Your task to perform on an android device: open app "McDonald's" (install if not already installed) Image 0: 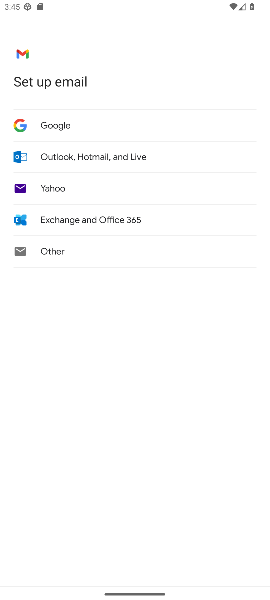
Step 0: press home button
Your task to perform on an android device: open app "McDonald's" (install if not already installed) Image 1: 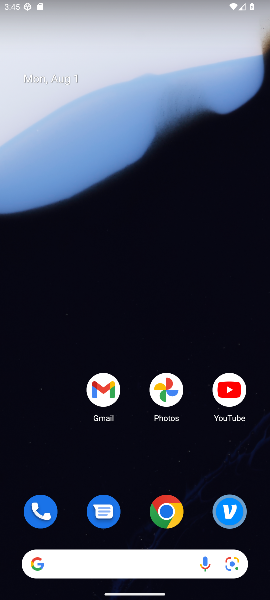
Step 1: click (126, 504)
Your task to perform on an android device: open app "McDonald's" (install if not already installed) Image 2: 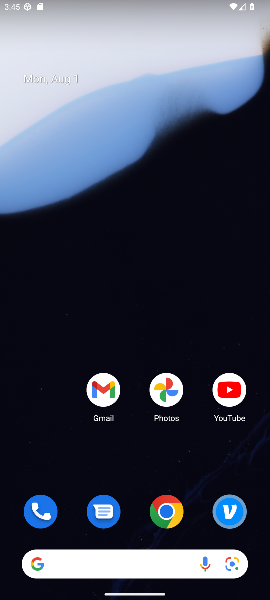
Step 2: drag from (124, 492) to (128, 142)
Your task to perform on an android device: open app "McDonald's" (install if not already installed) Image 3: 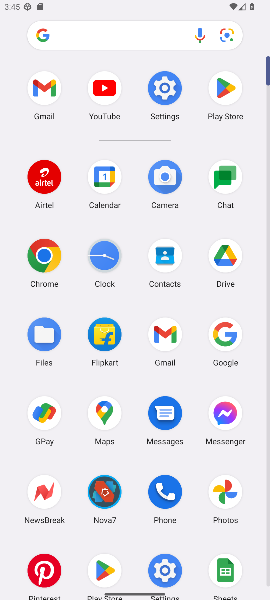
Step 3: click (217, 114)
Your task to perform on an android device: open app "McDonald's" (install if not already installed) Image 4: 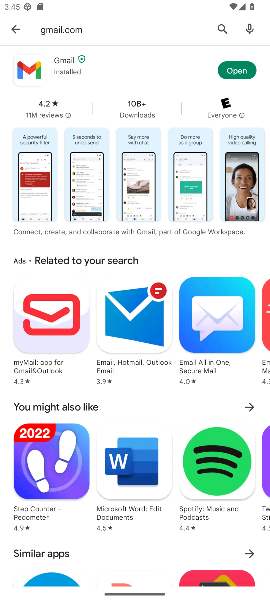
Step 4: click (15, 28)
Your task to perform on an android device: open app "McDonald's" (install if not already installed) Image 5: 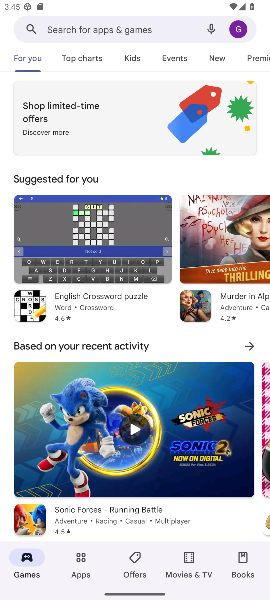
Step 5: click (109, 28)
Your task to perform on an android device: open app "McDonald's" (install if not already installed) Image 6: 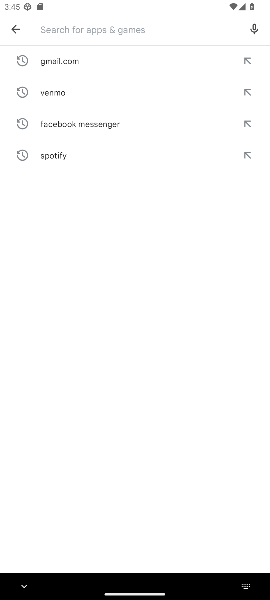
Step 6: type "McDonald's"
Your task to perform on an android device: open app "McDonald's" (install if not already installed) Image 7: 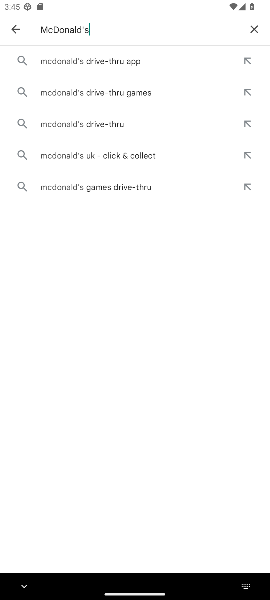
Step 7: click (116, 65)
Your task to perform on an android device: open app "McDonald's" (install if not already installed) Image 8: 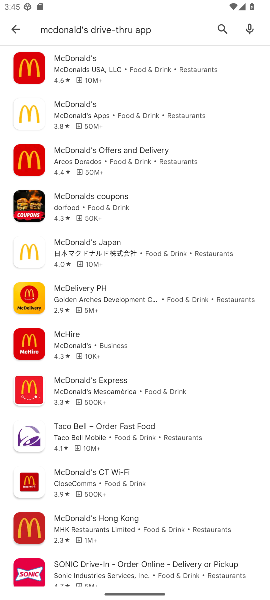
Step 8: click (64, 87)
Your task to perform on an android device: open app "McDonald's" (install if not already installed) Image 9: 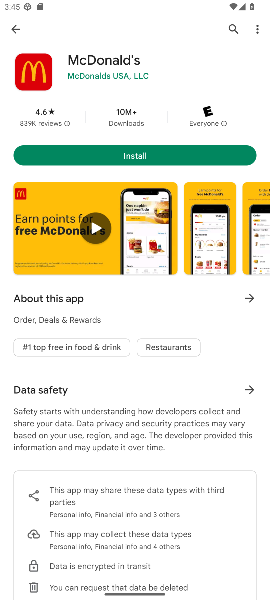
Step 9: click (125, 154)
Your task to perform on an android device: open app "McDonald's" (install if not already installed) Image 10: 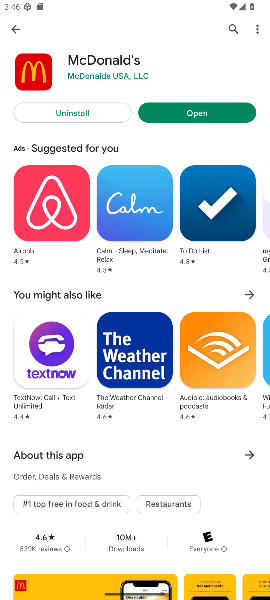
Step 10: click (184, 114)
Your task to perform on an android device: open app "McDonald's" (install if not already installed) Image 11: 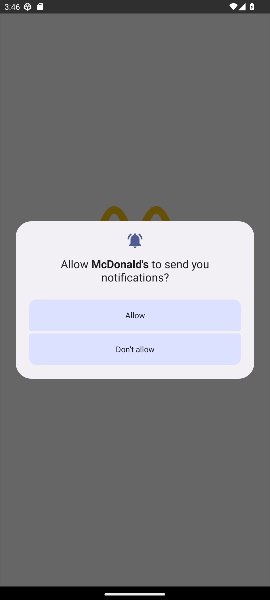
Step 11: click (124, 306)
Your task to perform on an android device: open app "McDonald's" (install if not already installed) Image 12: 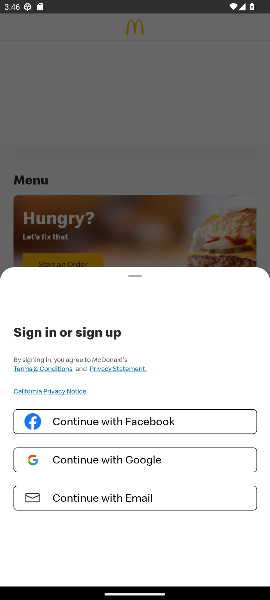
Step 12: task complete